Your task to perform on an android device: Set the phone to "Do not disturb". Image 0: 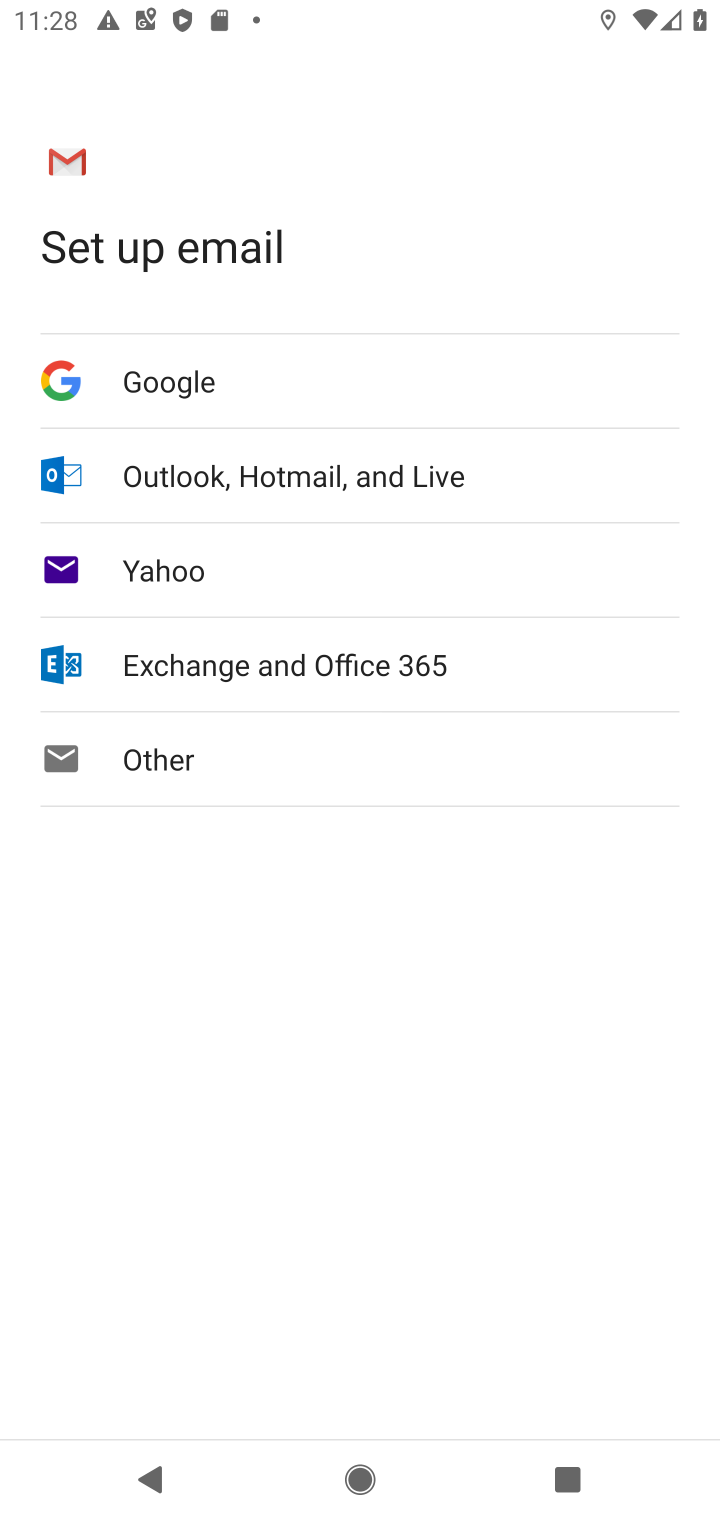
Step 0: press home button
Your task to perform on an android device: Set the phone to "Do not disturb". Image 1: 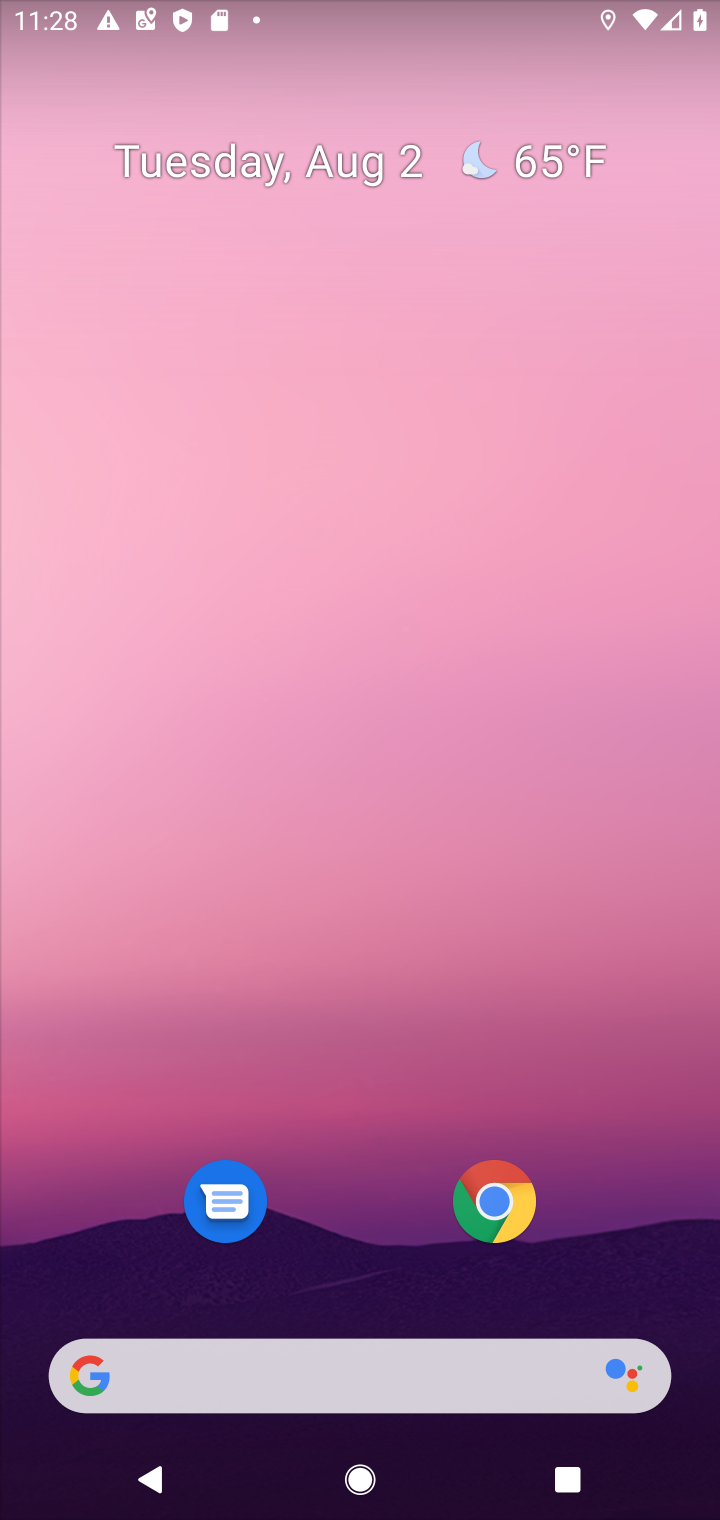
Step 1: drag from (362, 1213) to (518, 88)
Your task to perform on an android device: Set the phone to "Do not disturb". Image 2: 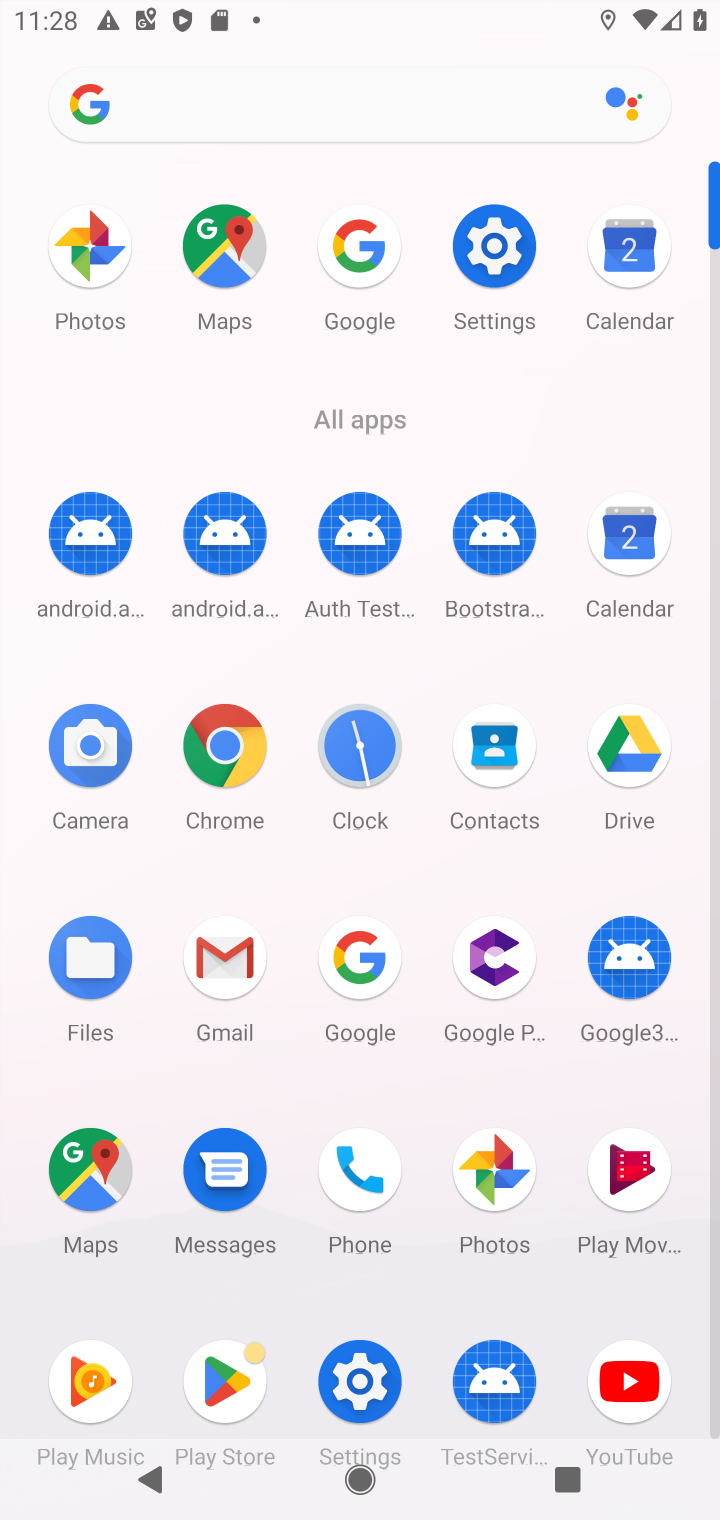
Step 2: click (494, 304)
Your task to perform on an android device: Set the phone to "Do not disturb". Image 3: 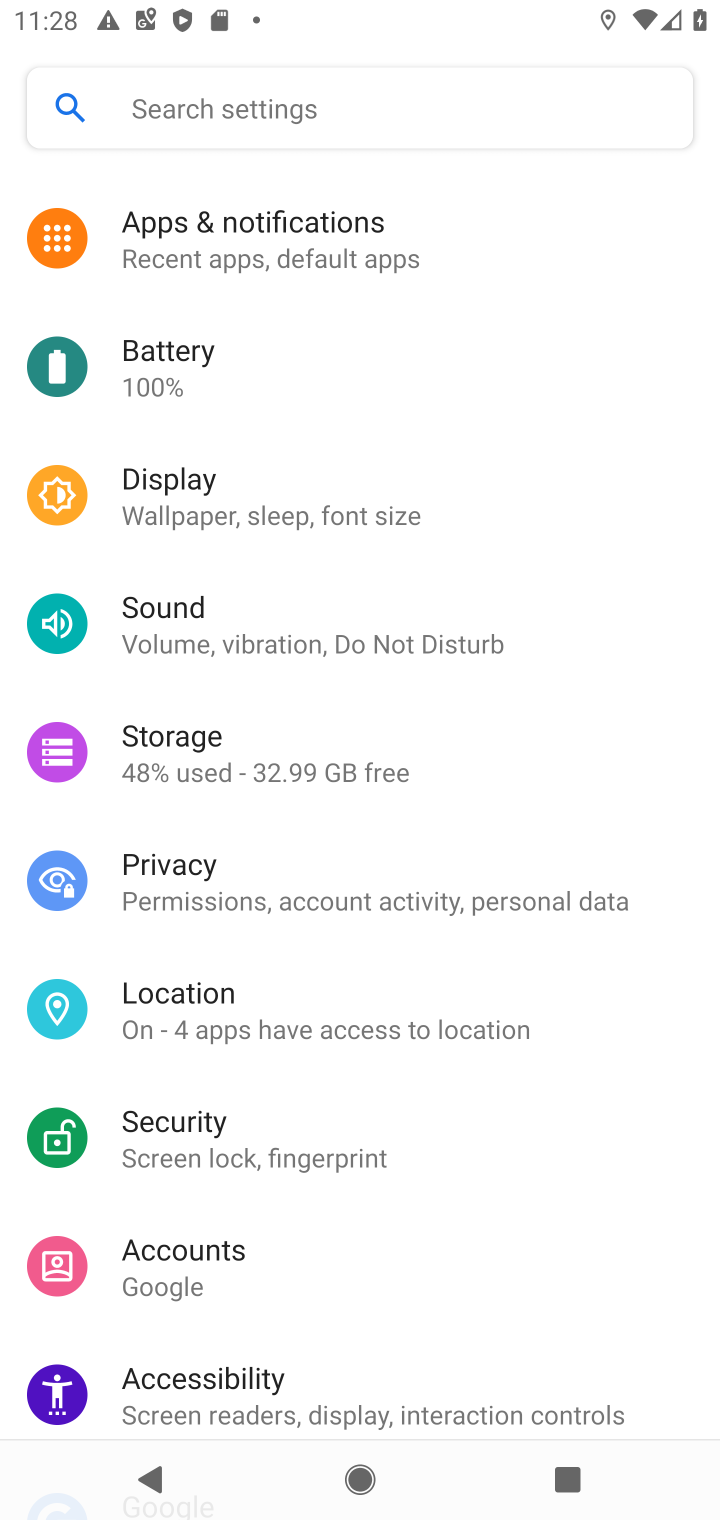
Step 3: drag from (322, 8) to (281, 1224)
Your task to perform on an android device: Set the phone to "Do not disturb". Image 4: 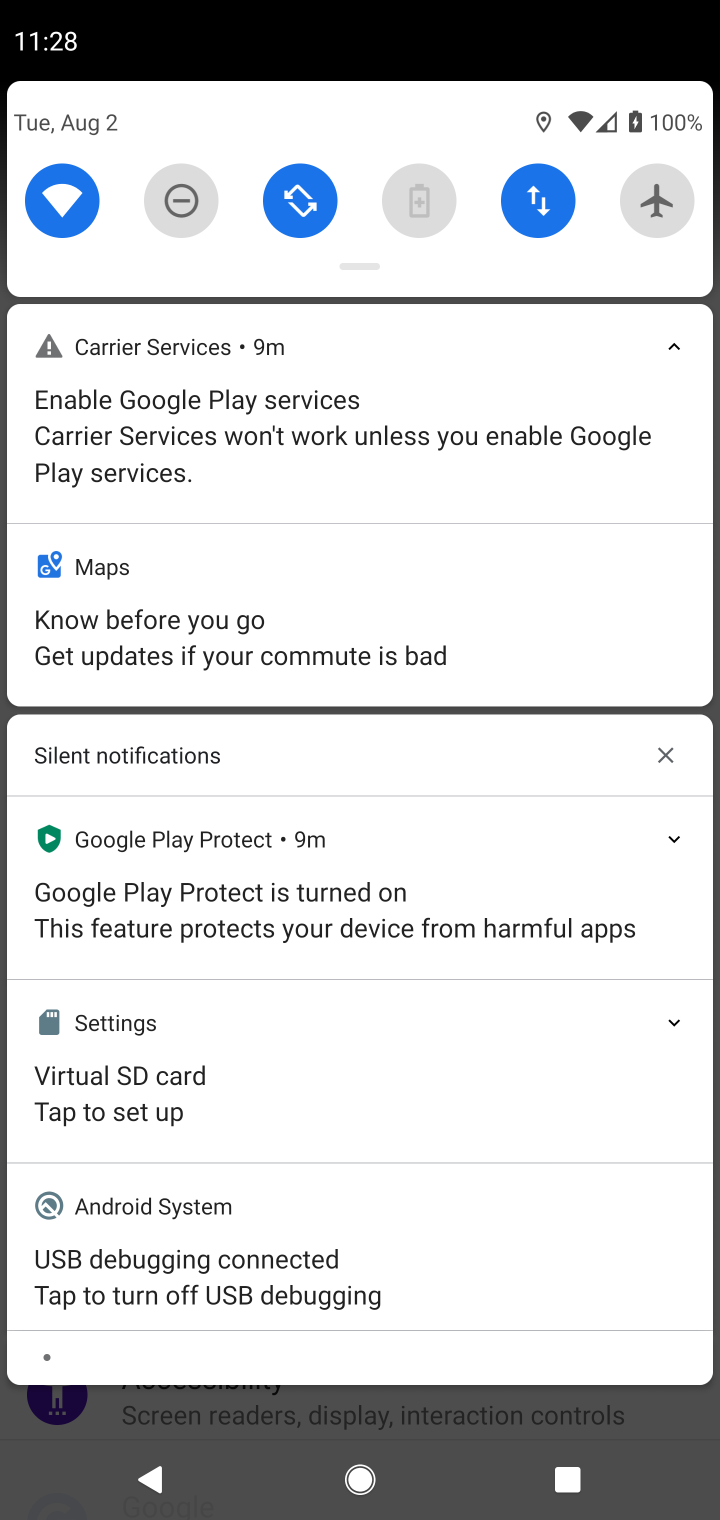
Step 4: click (200, 198)
Your task to perform on an android device: Set the phone to "Do not disturb". Image 5: 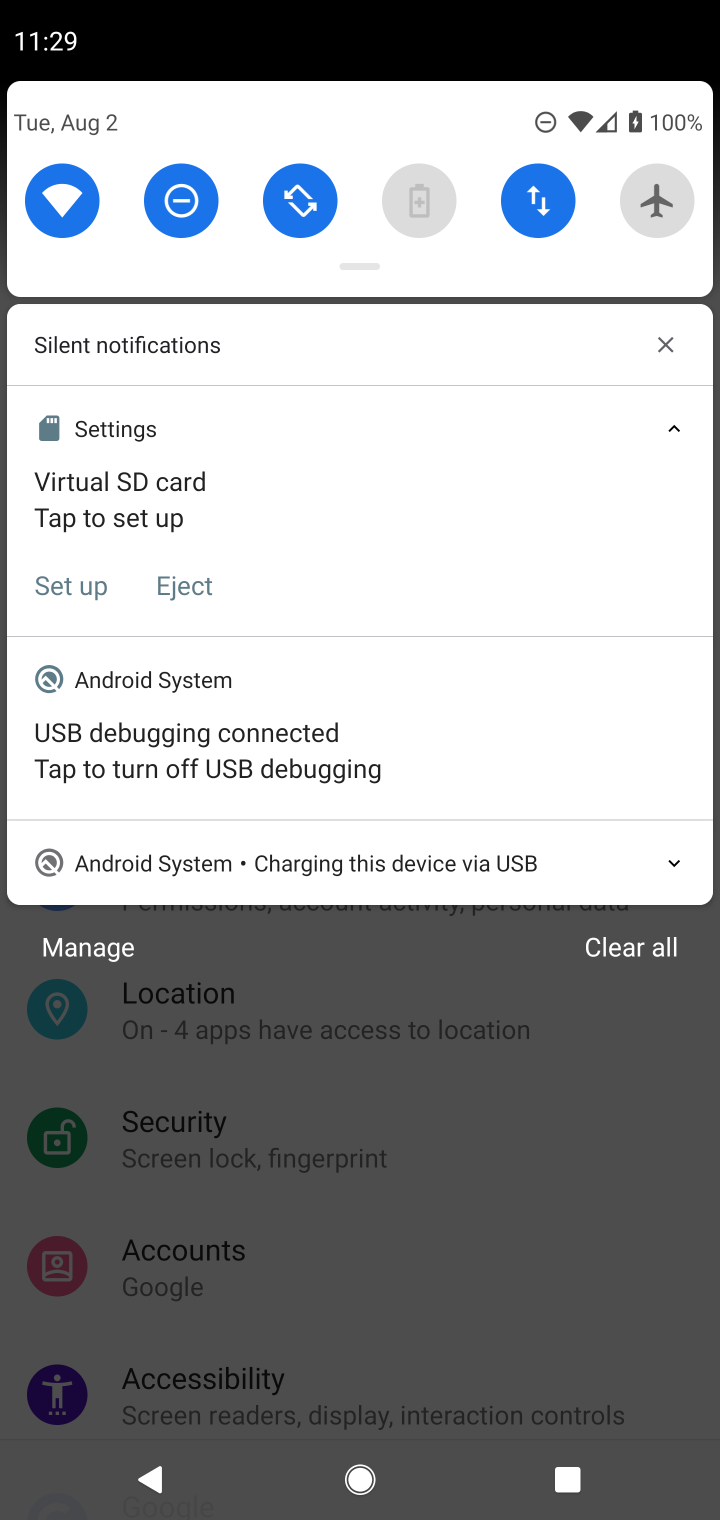
Step 5: task complete